Your task to perform on an android device: Go to network settings Image 0: 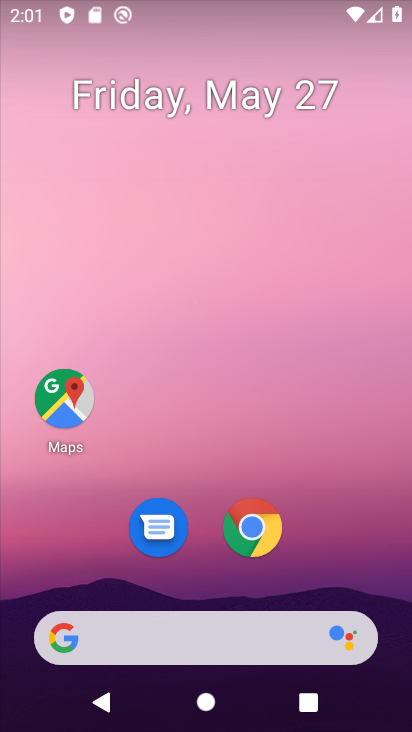
Step 0: drag from (245, 611) to (266, 168)
Your task to perform on an android device: Go to network settings Image 1: 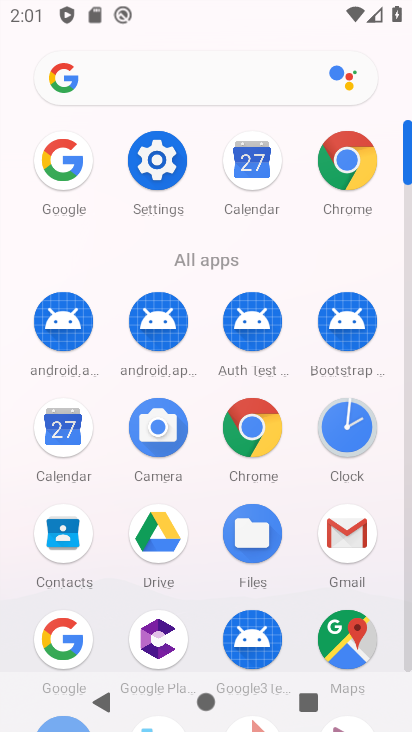
Step 1: click (343, 421)
Your task to perform on an android device: Go to network settings Image 2: 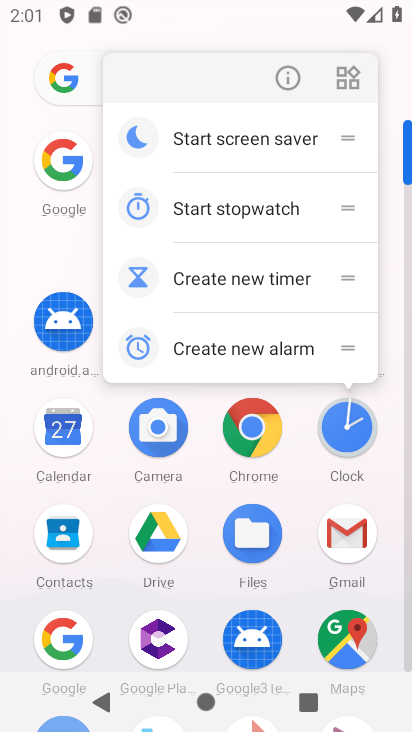
Step 2: drag from (102, 644) to (87, 242)
Your task to perform on an android device: Go to network settings Image 3: 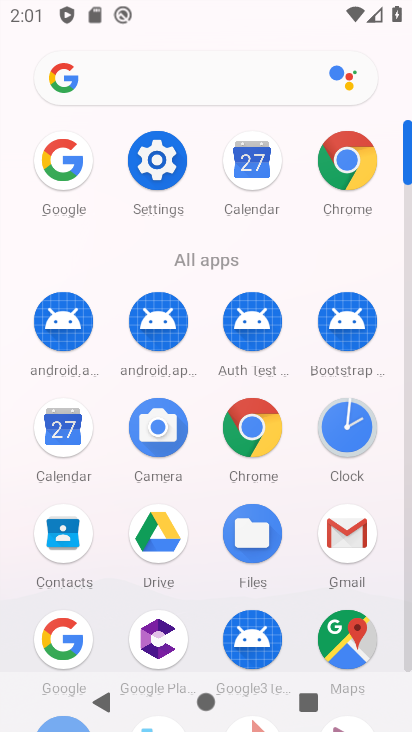
Step 3: drag from (100, 562) to (122, 211)
Your task to perform on an android device: Go to network settings Image 4: 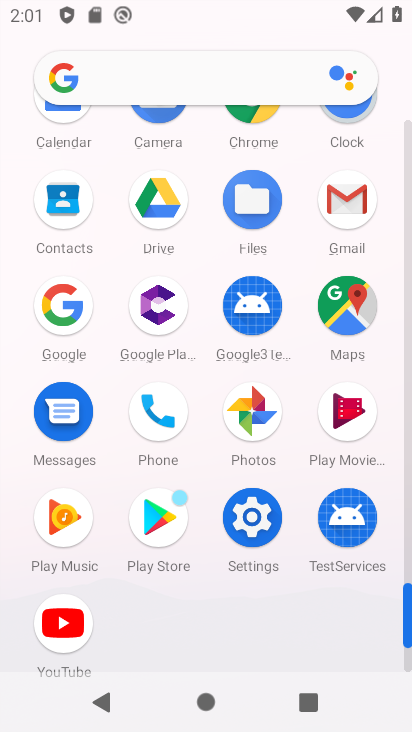
Step 4: click (253, 527)
Your task to perform on an android device: Go to network settings Image 5: 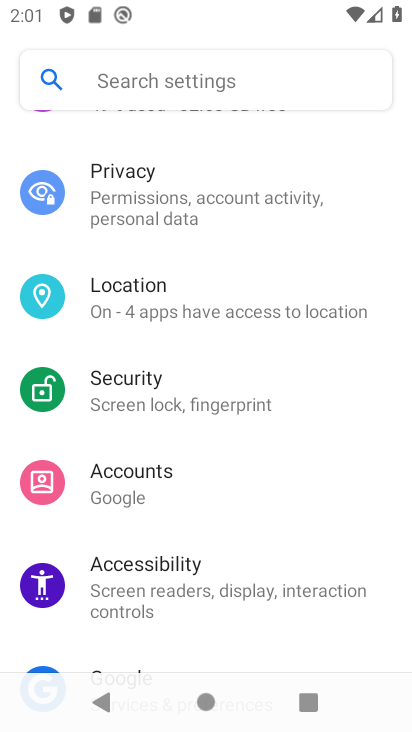
Step 5: drag from (138, 137) to (150, 547)
Your task to perform on an android device: Go to network settings Image 6: 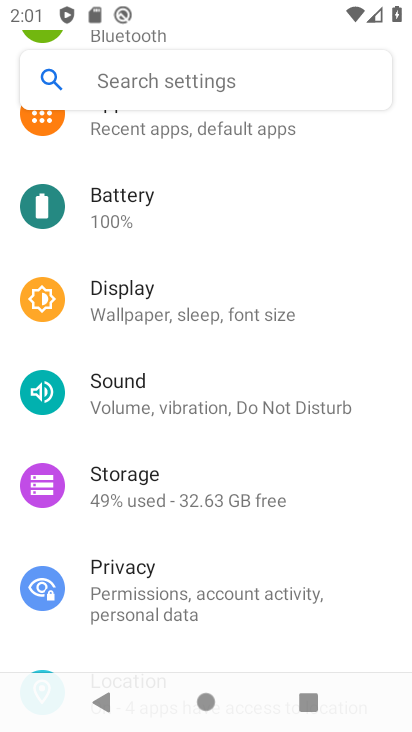
Step 6: drag from (190, 280) to (219, 583)
Your task to perform on an android device: Go to network settings Image 7: 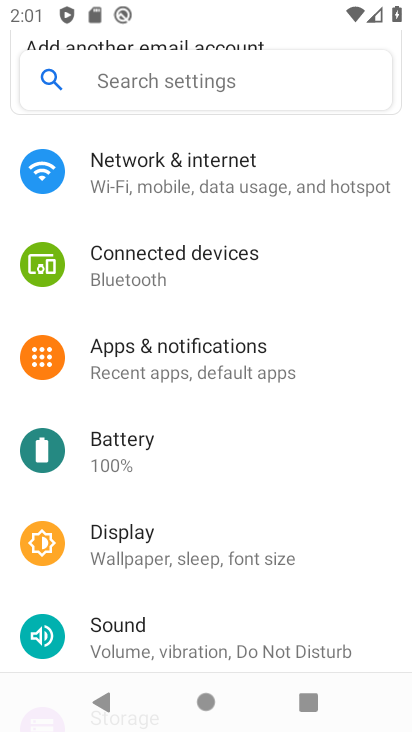
Step 7: click (175, 187)
Your task to perform on an android device: Go to network settings Image 8: 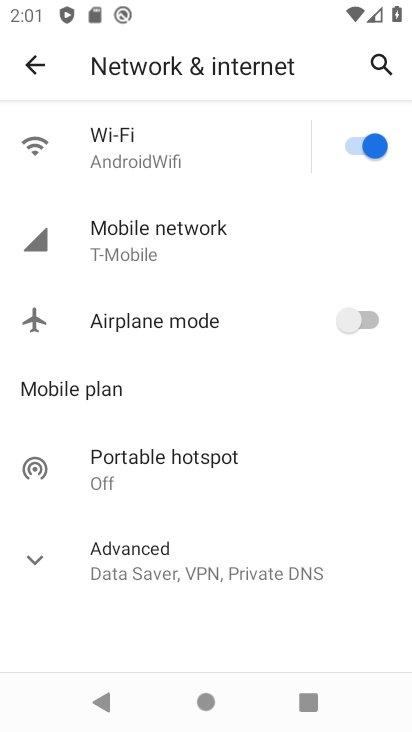
Step 8: click (184, 242)
Your task to perform on an android device: Go to network settings Image 9: 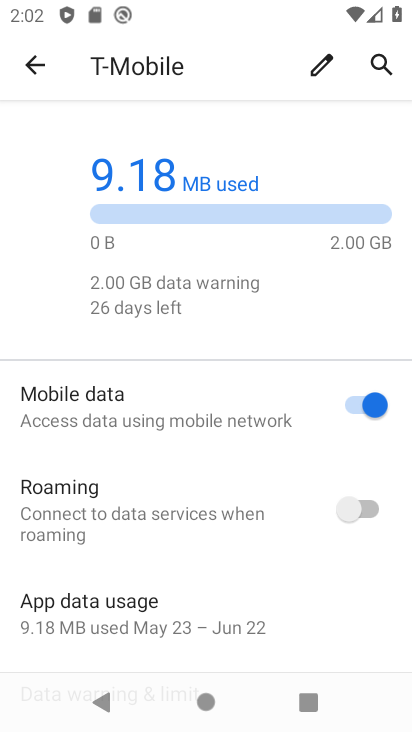
Step 9: click (278, 153)
Your task to perform on an android device: Go to network settings Image 10: 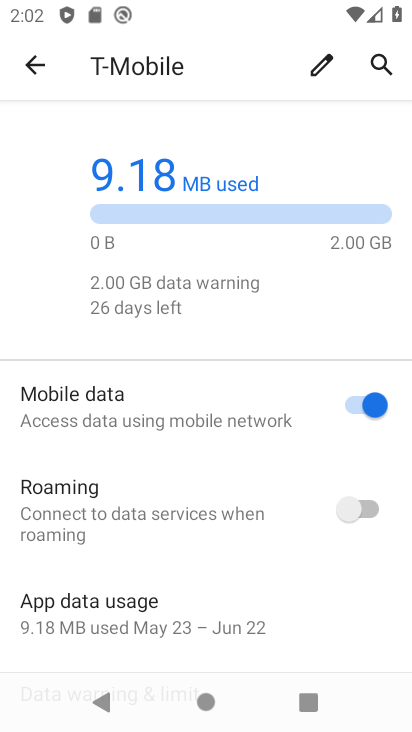
Step 10: task complete